Your task to perform on an android device: turn vacation reply on in the gmail app Image 0: 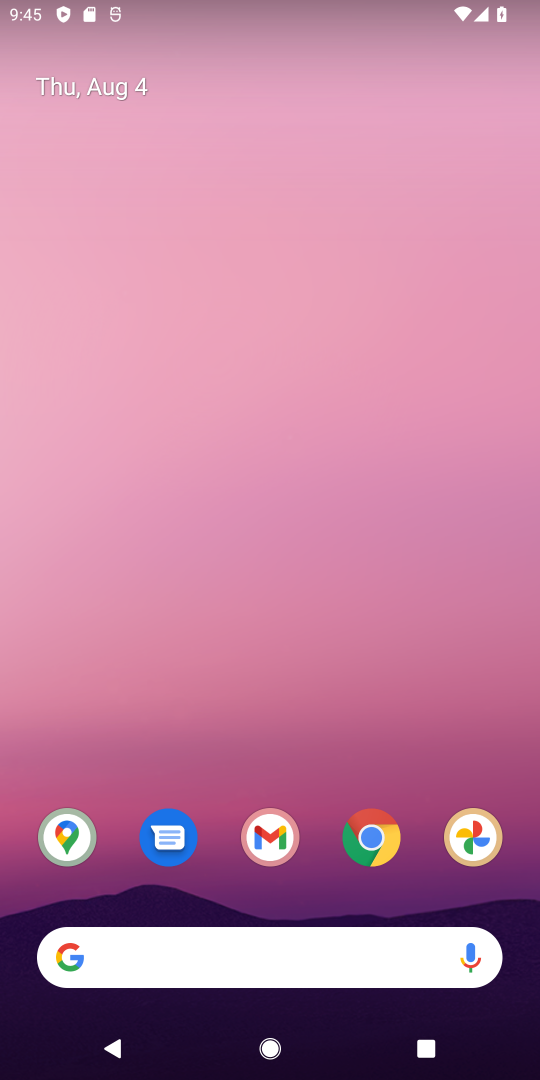
Step 0: drag from (434, 810) to (204, 105)
Your task to perform on an android device: turn vacation reply on in the gmail app Image 1: 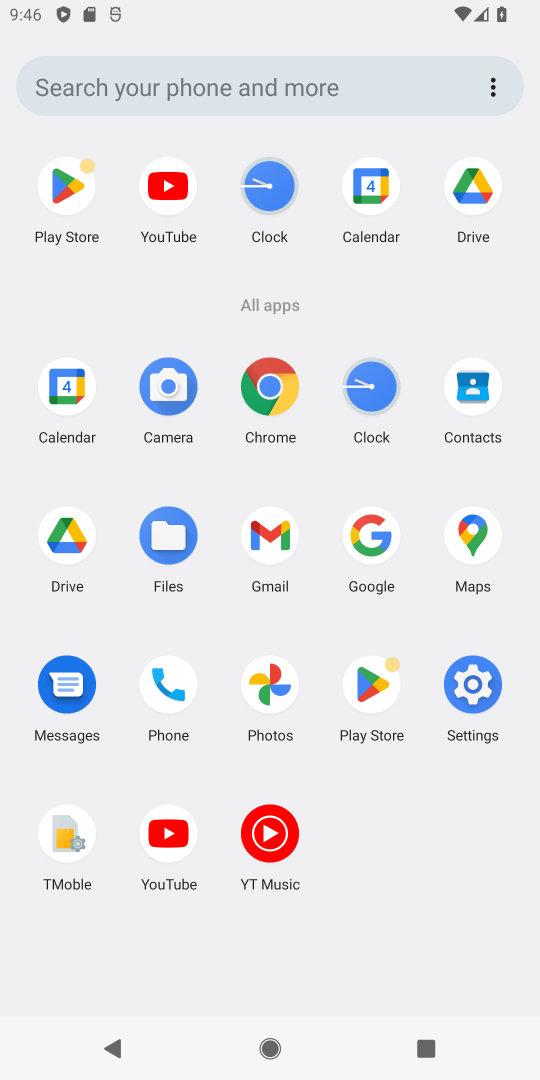
Step 1: click (247, 546)
Your task to perform on an android device: turn vacation reply on in the gmail app Image 2: 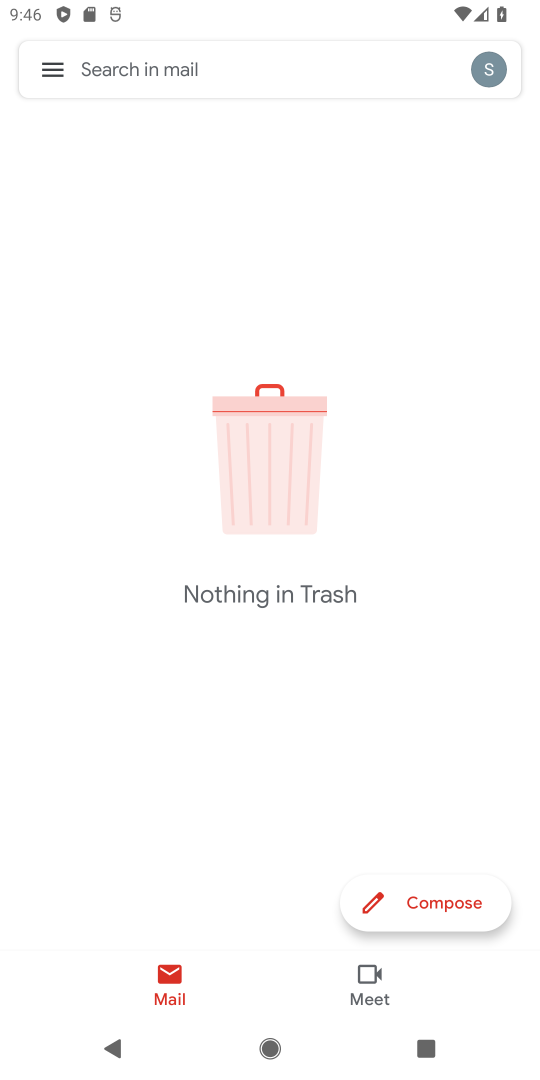
Step 2: click (54, 78)
Your task to perform on an android device: turn vacation reply on in the gmail app Image 3: 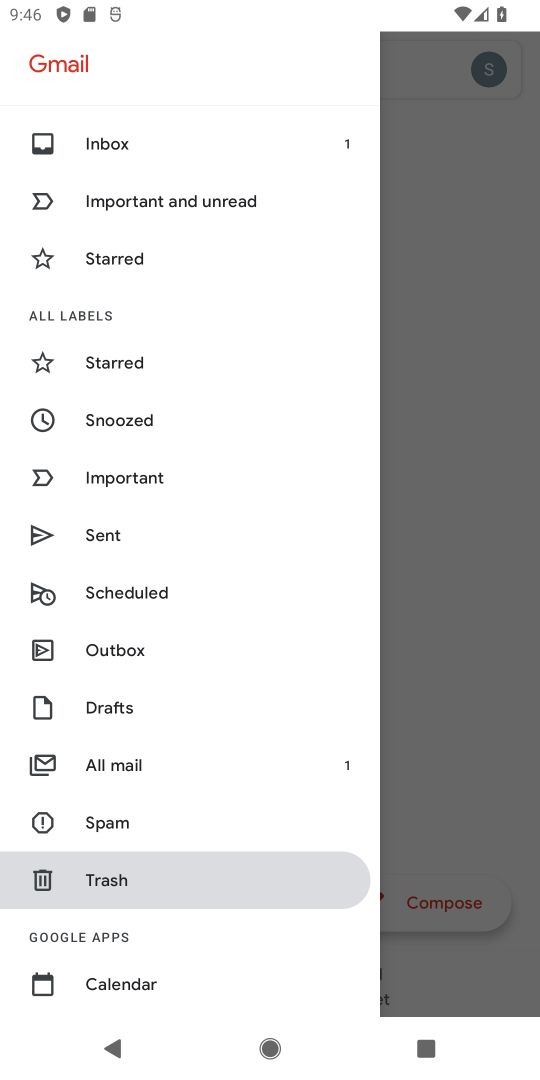
Step 3: drag from (122, 1008) to (132, 304)
Your task to perform on an android device: turn vacation reply on in the gmail app Image 4: 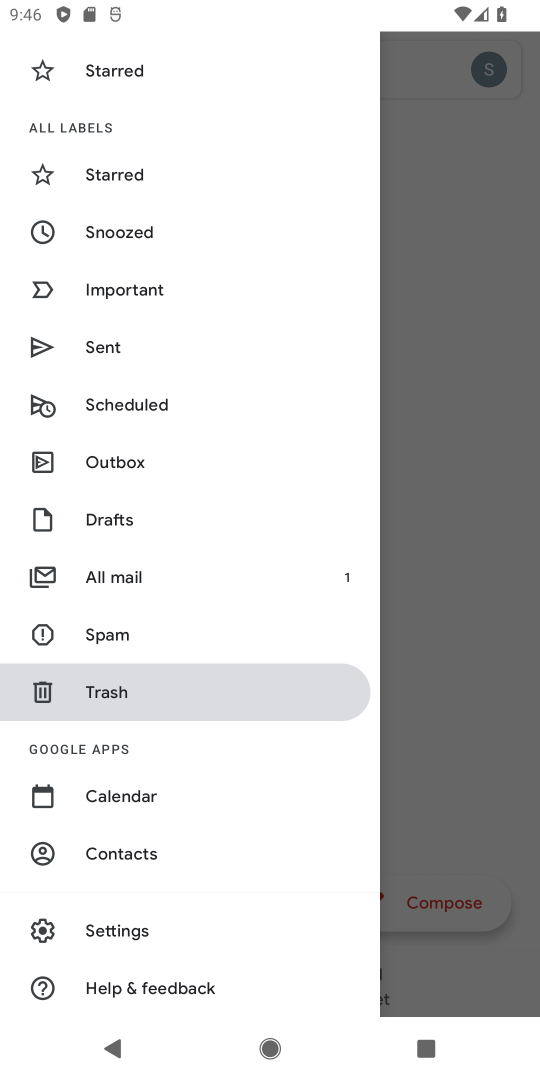
Step 4: click (115, 921)
Your task to perform on an android device: turn vacation reply on in the gmail app Image 5: 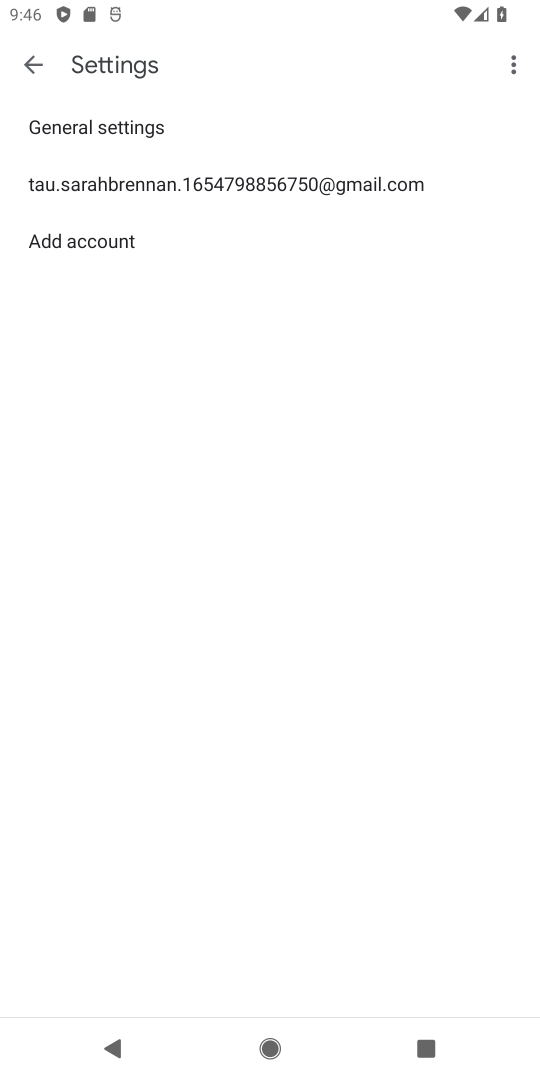
Step 5: click (198, 182)
Your task to perform on an android device: turn vacation reply on in the gmail app Image 6: 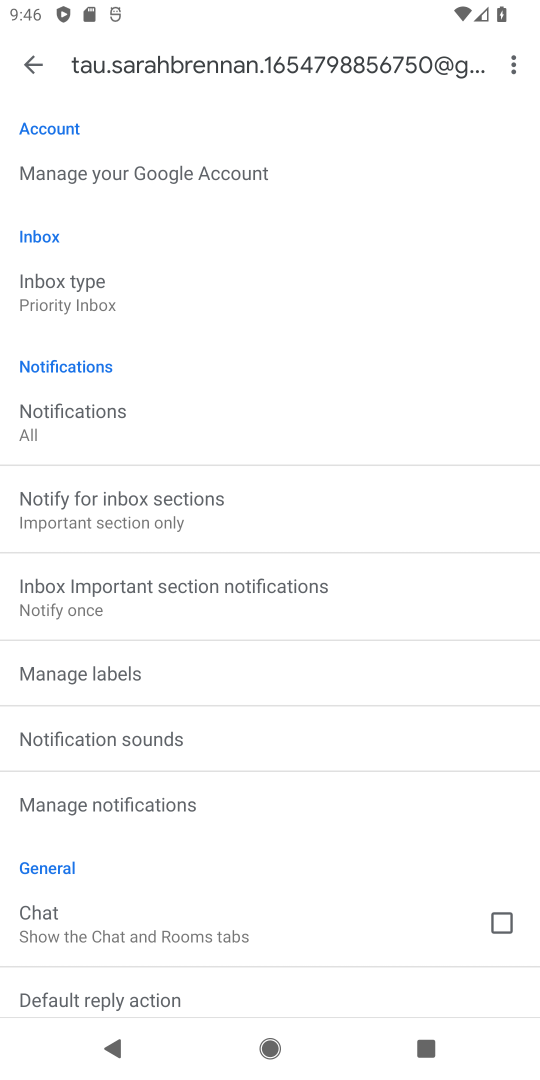
Step 6: drag from (203, 911) to (163, 446)
Your task to perform on an android device: turn vacation reply on in the gmail app Image 7: 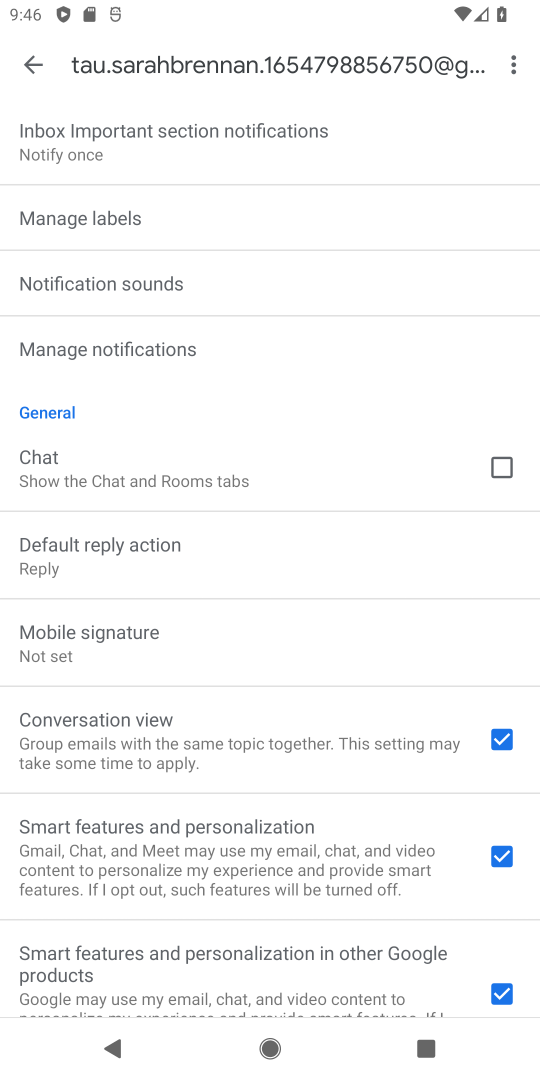
Step 7: drag from (97, 917) to (124, 415)
Your task to perform on an android device: turn vacation reply on in the gmail app Image 8: 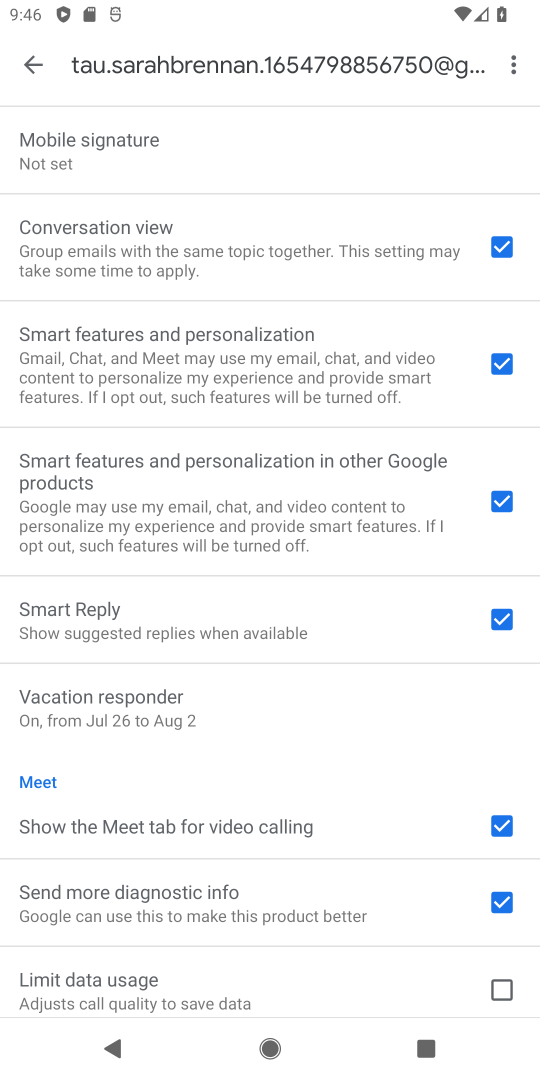
Step 8: click (113, 719)
Your task to perform on an android device: turn vacation reply on in the gmail app Image 9: 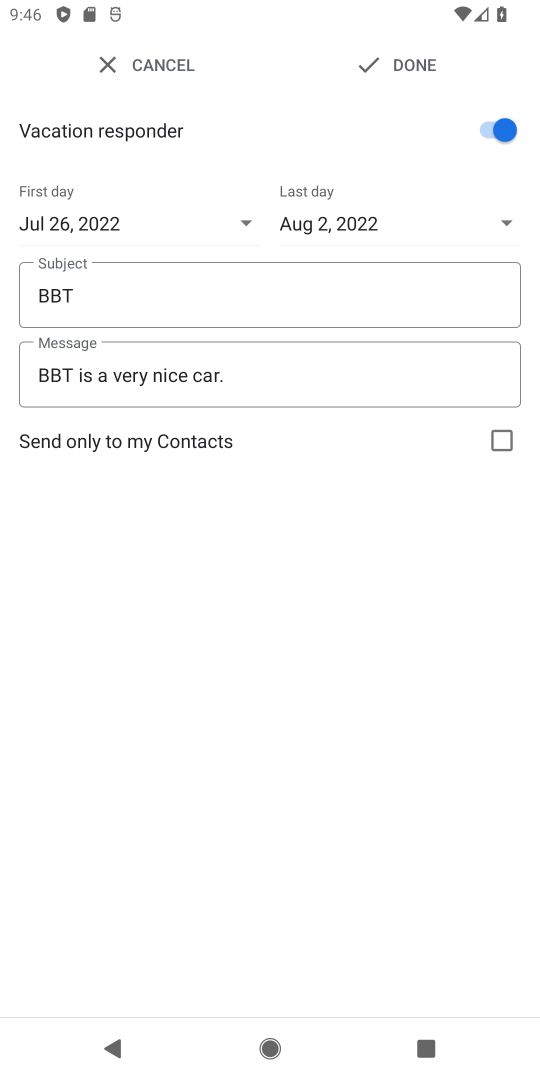
Step 9: task complete